Your task to perform on an android device: Open Android settings Image 0: 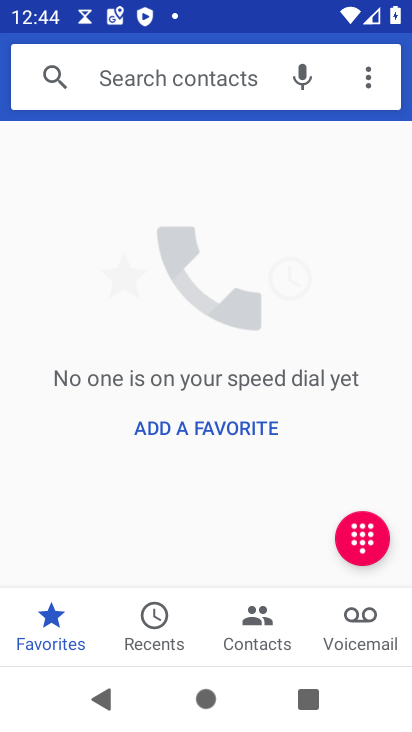
Step 0: press home button
Your task to perform on an android device: Open Android settings Image 1: 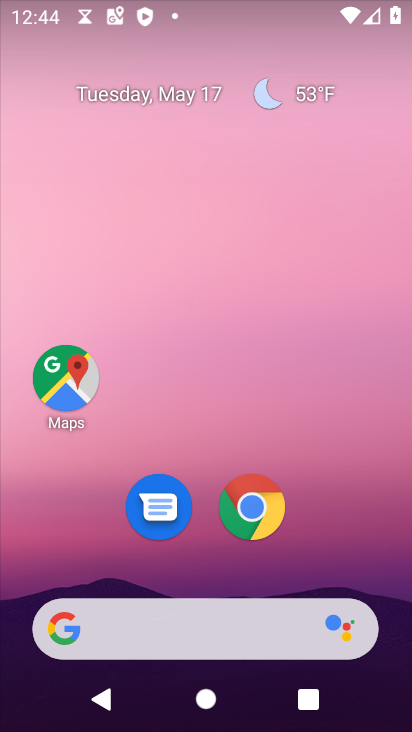
Step 1: drag from (258, 571) to (235, 109)
Your task to perform on an android device: Open Android settings Image 2: 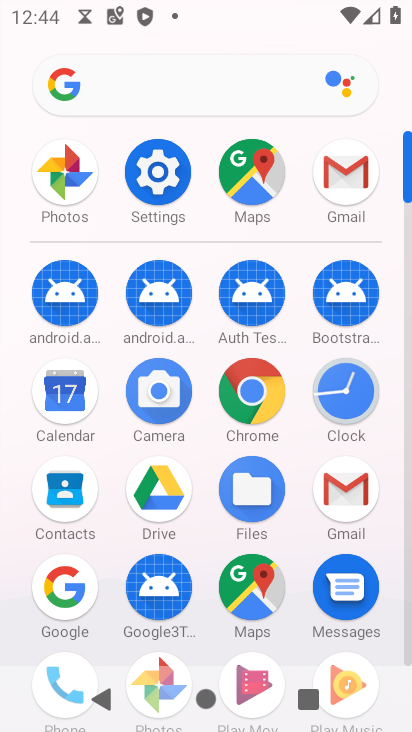
Step 2: click (153, 176)
Your task to perform on an android device: Open Android settings Image 3: 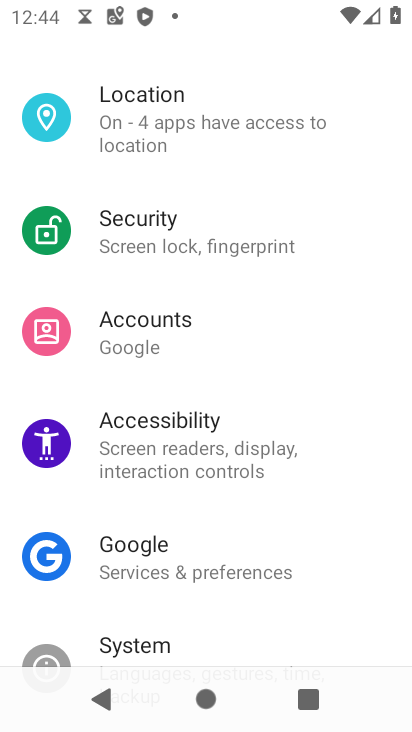
Step 3: drag from (231, 614) to (240, 390)
Your task to perform on an android device: Open Android settings Image 4: 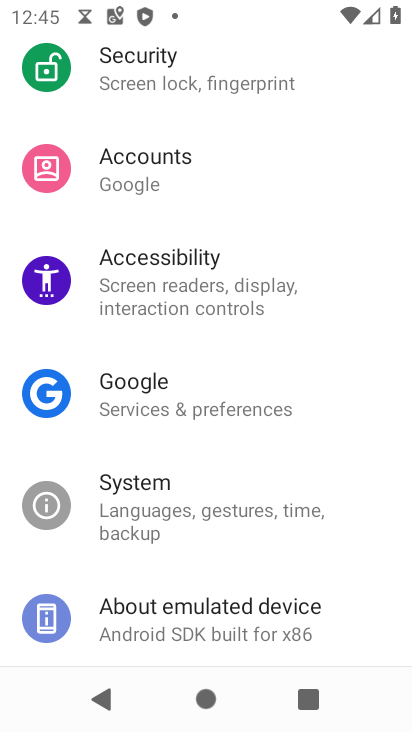
Step 4: click (176, 607)
Your task to perform on an android device: Open Android settings Image 5: 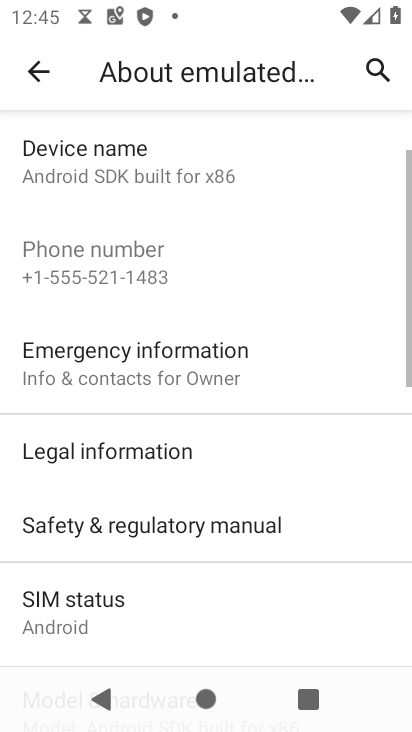
Step 5: drag from (190, 614) to (225, 325)
Your task to perform on an android device: Open Android settings Image 6: 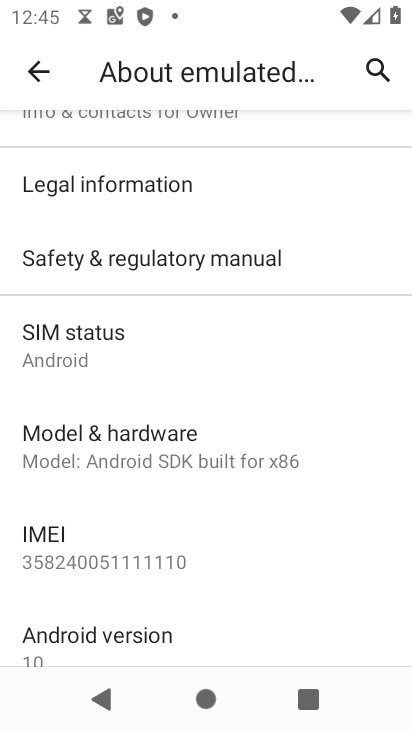
Step 6: drag from (151, 592) to (134, 476)
Your task to perform on an android device: Open Android settings Image 7: 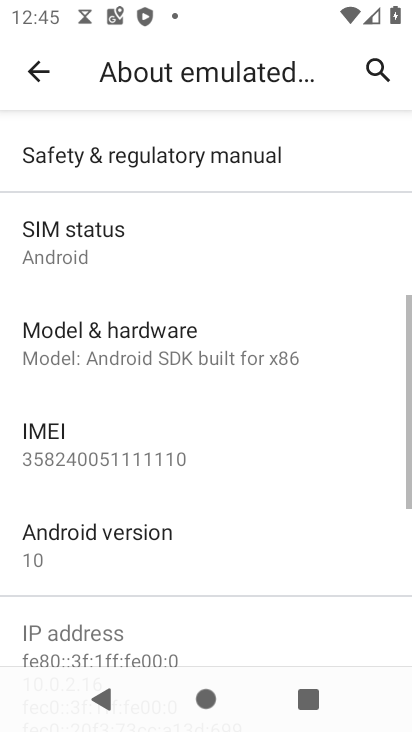
Step 7: click (93, 576)
Your task to perform on an android device: Open Android settings Image 8: 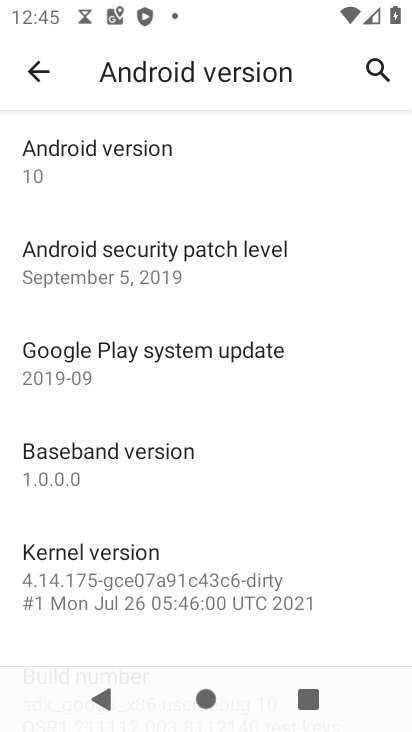
Step 8: click (125, 147)
Your task to perform on an android device: Open Android settings Image 9: 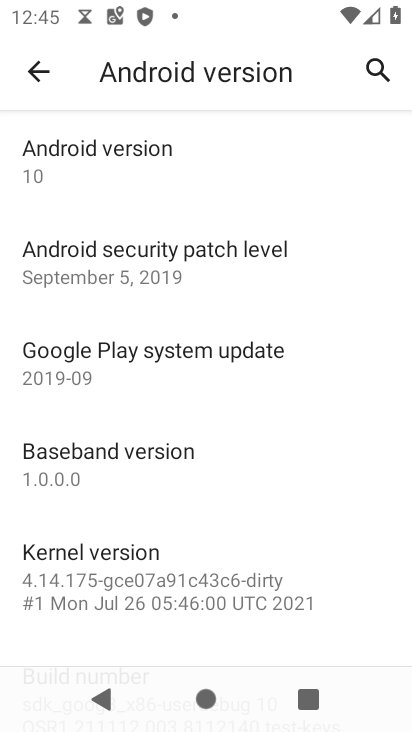
Step 9: task complete